Your task to perform on an android device: Clear the shopping cart on target.com. Add "razer huntsman" to the cart on target.com, then select checkout. Image 0: 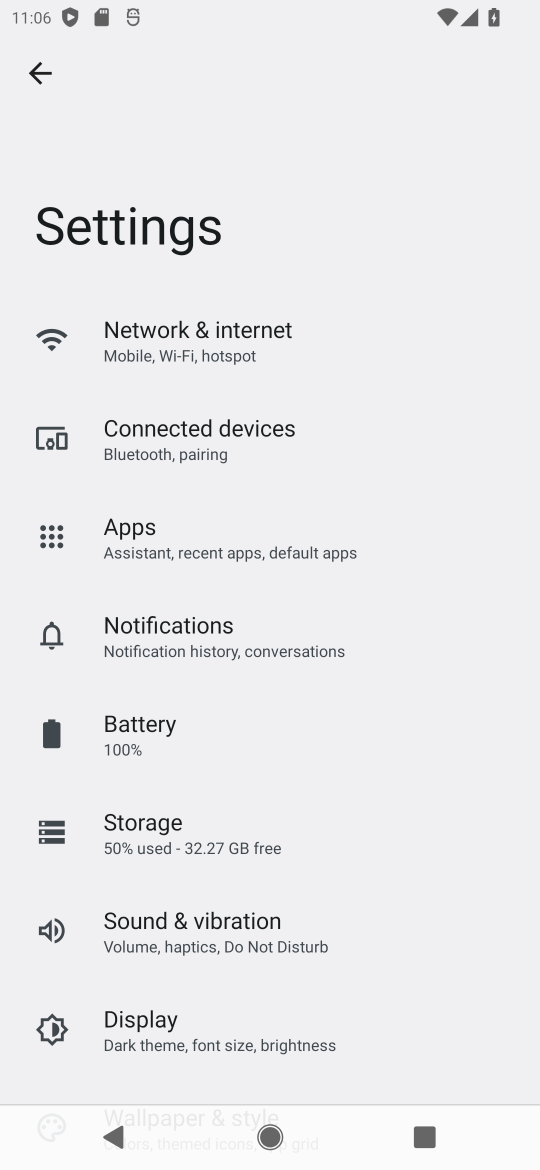
Step 0: press home button
Your task to perform on an android device: Clear the shopping cart on target.com. Add "razer huntsman" to the cart on target.com, then select checkout. Image 1: 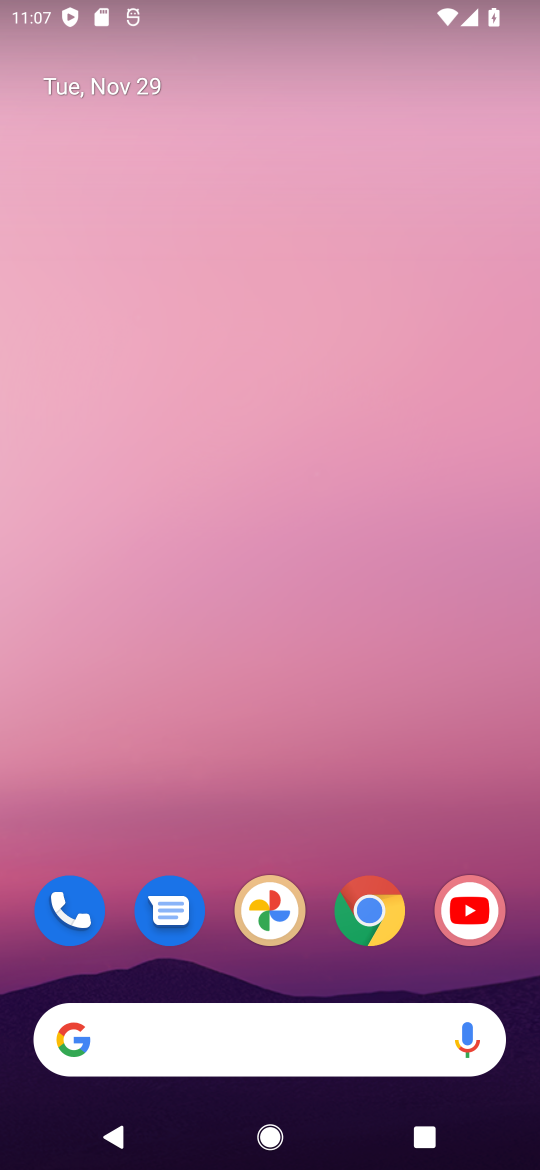
Step 1: click (371, 909)
Your task to perform on an android device: Clear the shopping cart on target.com. Add "razer huntsman" to the cart on target.com, then select checkout. Image 2: 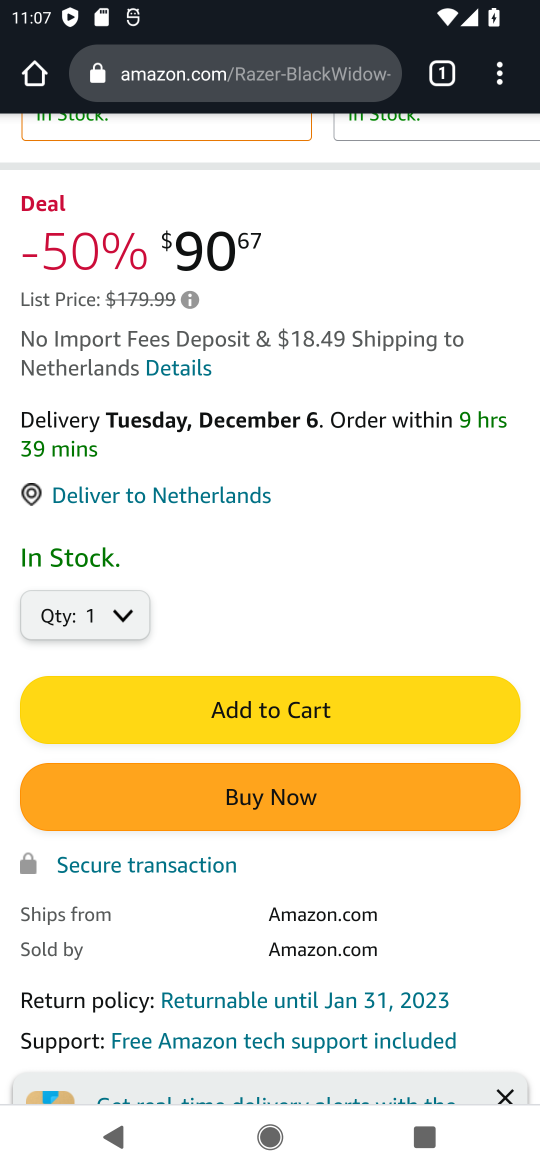
Step 2: click (218, 72)
Your task to perform on an android device: Clear the shopping cart on target.com. Add "razer huntsman" to the cart on target.com, then select checkout. Image 3: 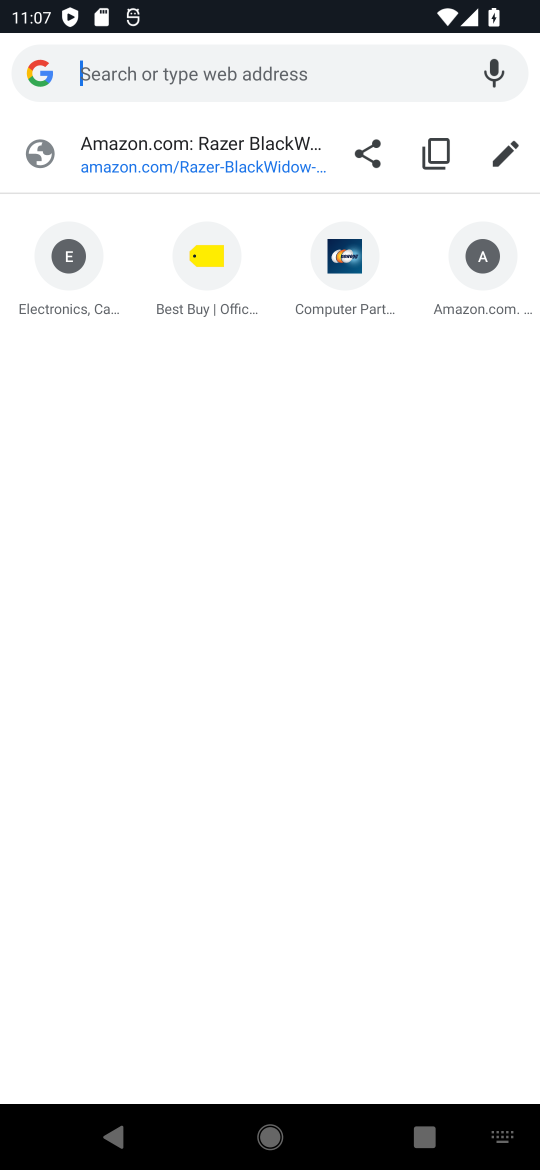
Step 3: type "target.com"
Your task to perform on an android device: Clear the shopping cart on target.com. Add "razer huntsman" to the cart on target.com, then select checkout. Image 4: 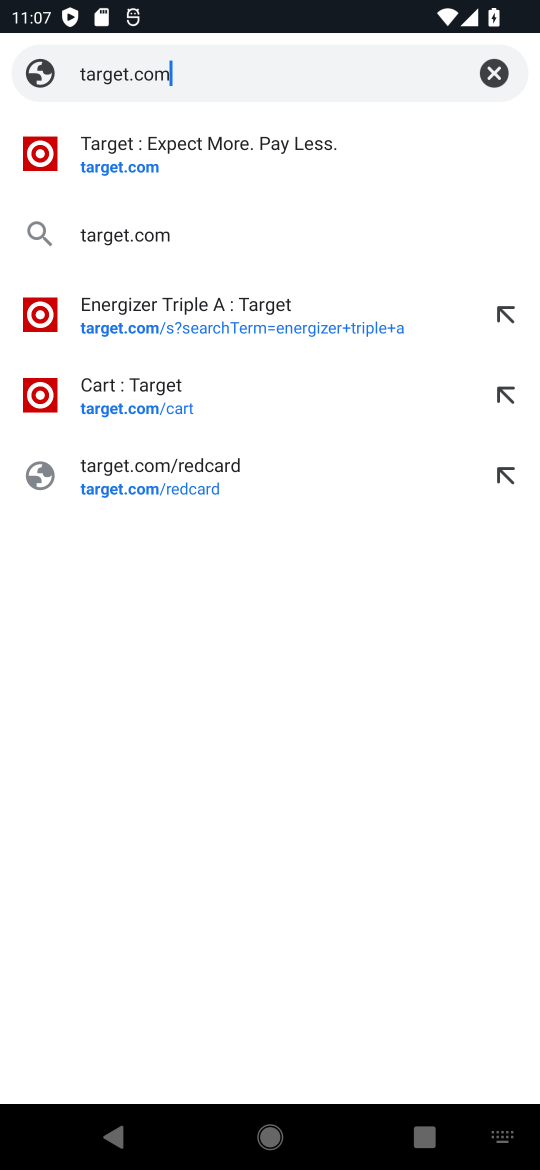
Step 4: click (139, 173)
Your task to perform on an android device: Clear the shopping cart on target.com. Add "razer huntsman" to the cart on target.com, then select checkout. Image 5: 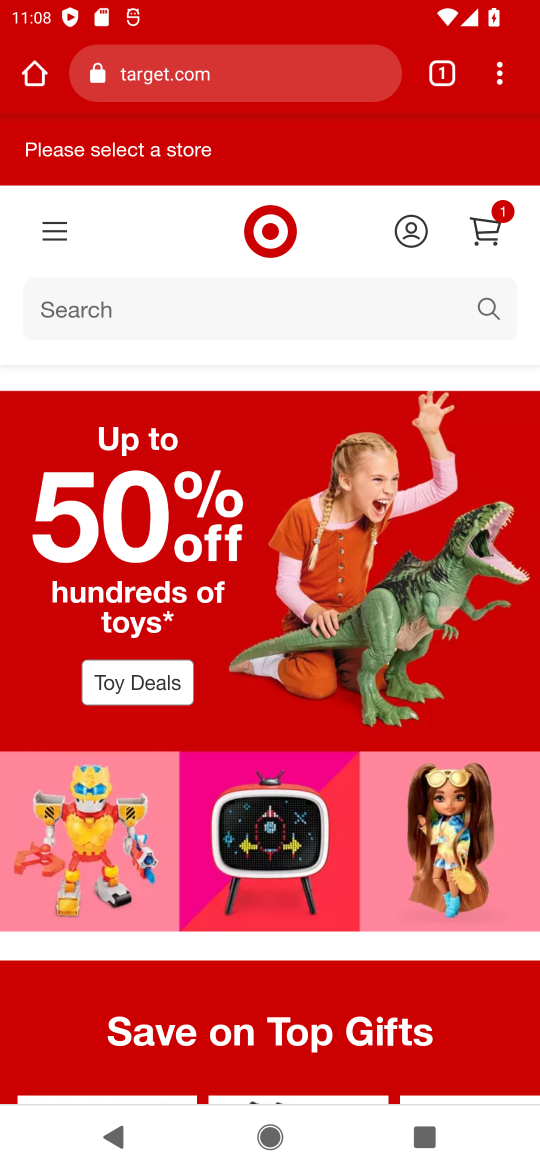
Step 5: click (483, 230)
Your task to perform on an android device: Clear the shopping cart on target.com. Add "razer huntsman" to the cart on target.com, then select checkout. Image 6: 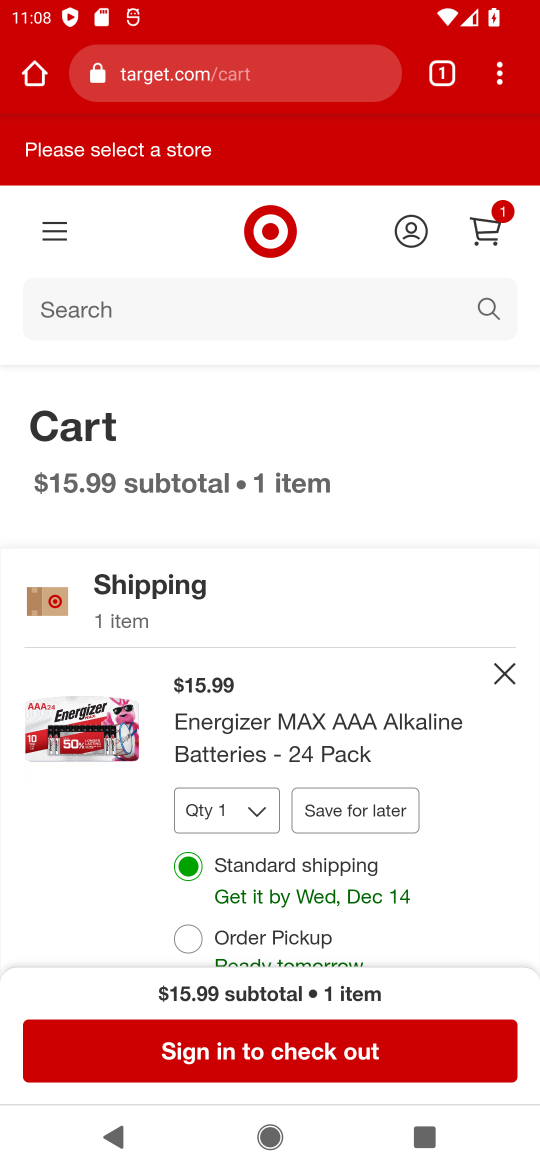
Step 6: click (510, 680)
Your task to perform on an android device: Clear the shopping cart on target.com. Add "razer huntsman" to the cart on target.com, then select checkout. Image 7: 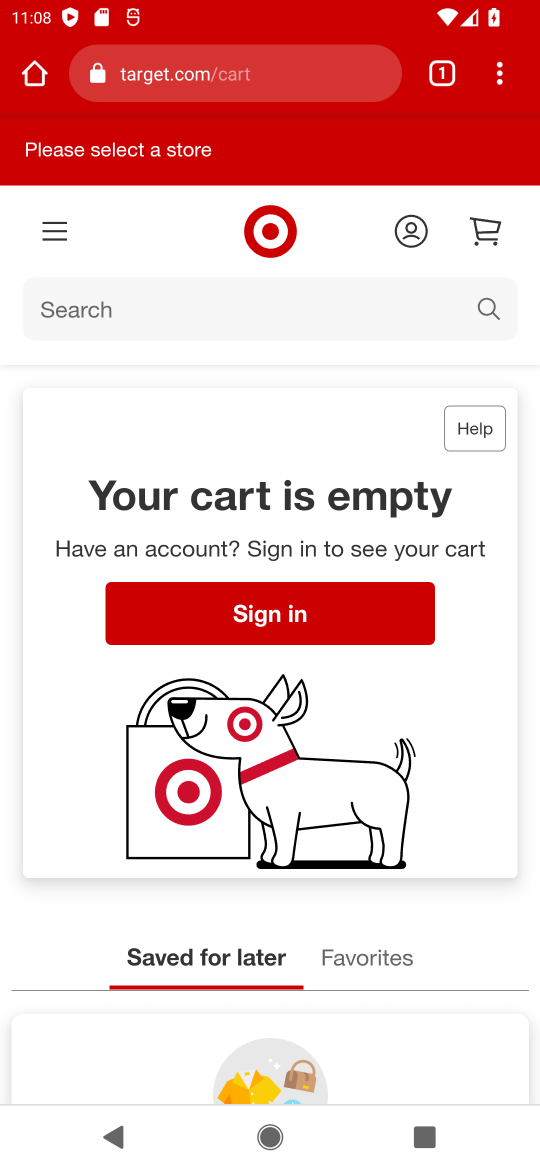
Step 7: click (103, 310)
Your task to perform on an android device: Clear the shopping cart on target.com. Add "razer huntsman" to the cart on target.com, then select checkout. Image 8: 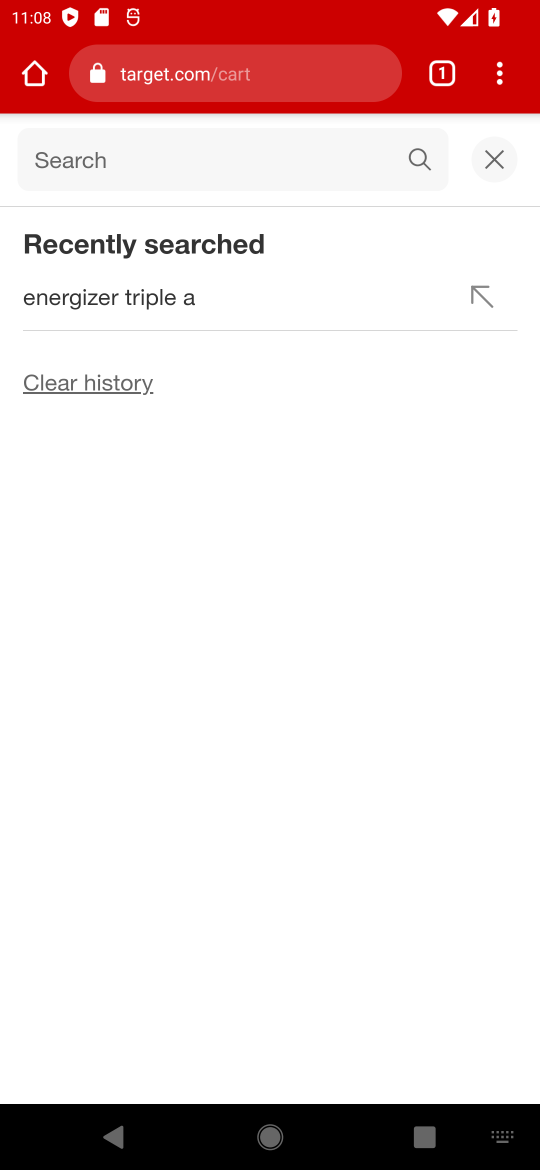
Step 8: type "razer huntsman"
Your task to perform on an android device: Clear the shopping cart on target.com. Add "razer huntsman" to the cart on target.com, then select checkout. Image 9: 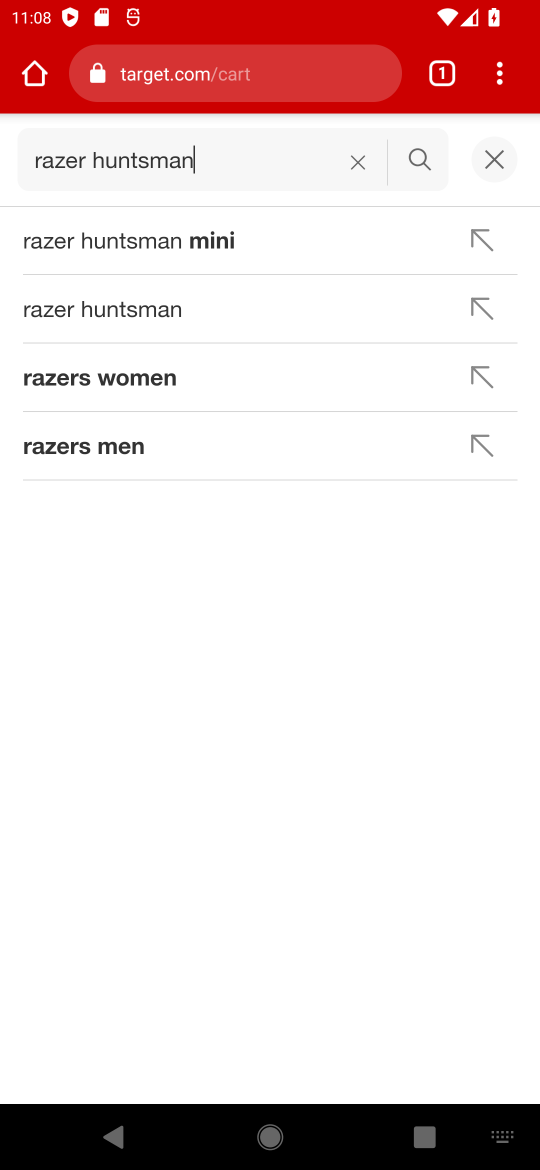
Step 9: click (104, 309)
Your task to perform on an android device: Clear the shopping cart on target.com. Add "razer huntsman" to the cart on target.com, then select checkout. Image 10: 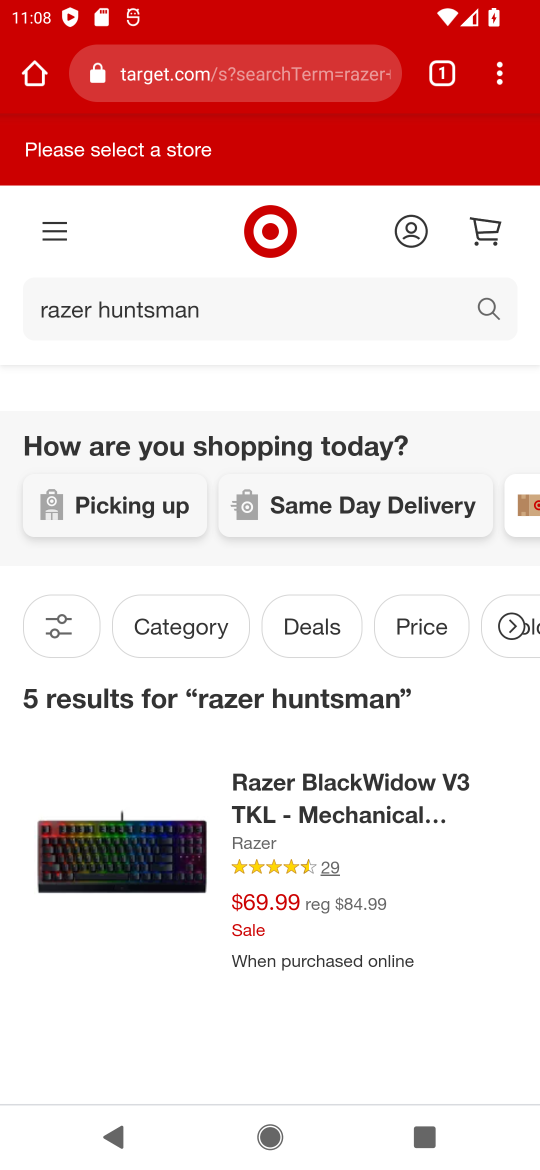
Step 10: drag from (245, 639) to (257, 410)
Your task to perform on an android device: Clear the shopping cart on target.com. Add "razer huntsman" to the cart on target.com, then select checkout. Image 11: 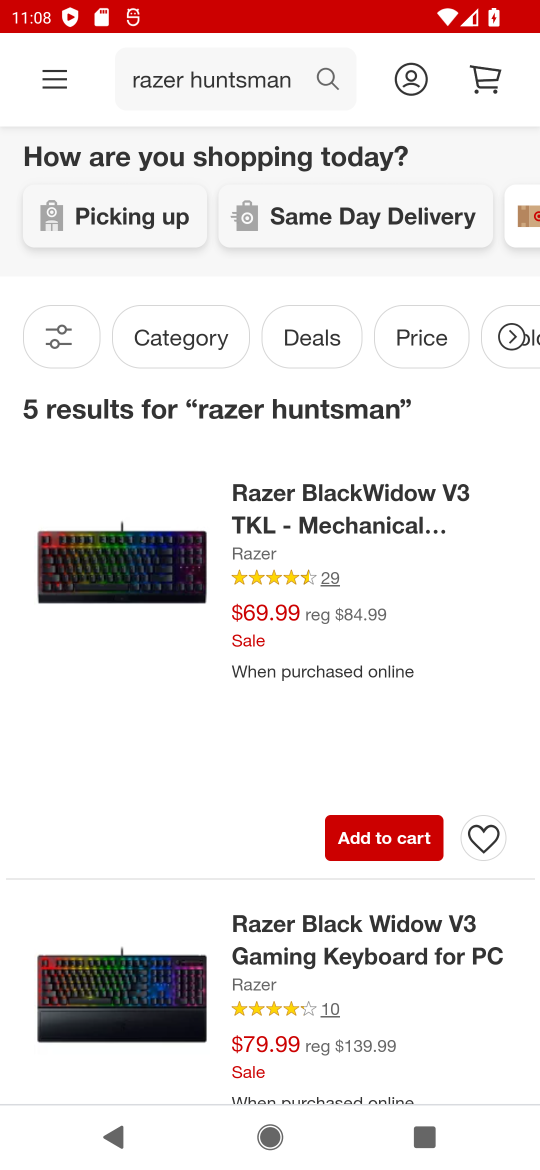
Step 11: drag from (212, 823) to (246, 436)
Your task to perform on an android device: Clear the shopping cart on target.com. Add "razer huntsman" to the cart on target.com, then select checkout. Image 12: 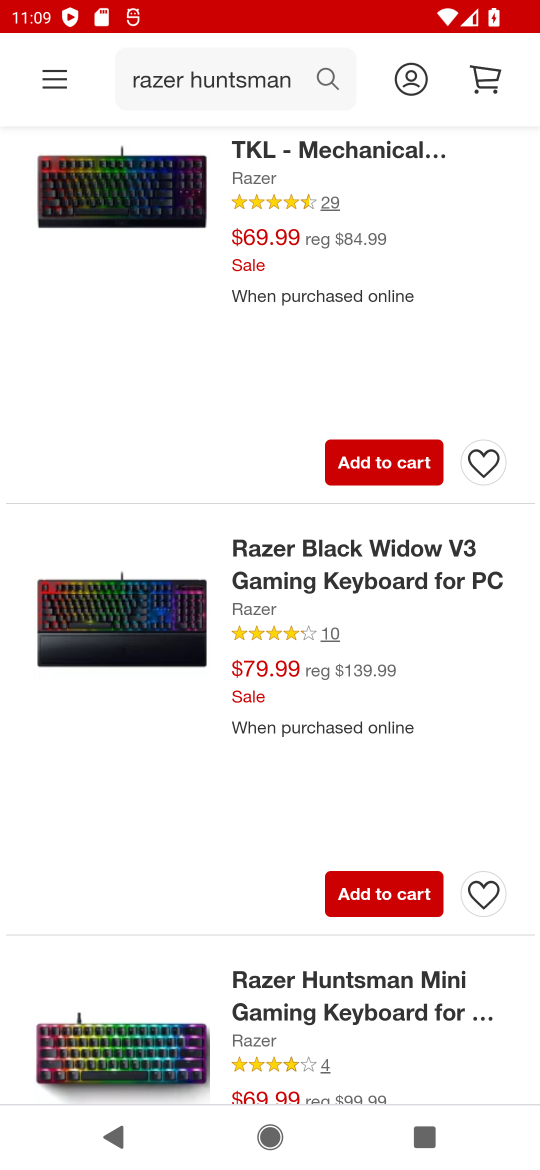
Step 12: drag from (226, 893) to (235, 548)
Your task to perform on an android device: Clear the shopping cart on target.com. Add "razer huntsman" to the cart on target.com, then select checkout. Image 13: 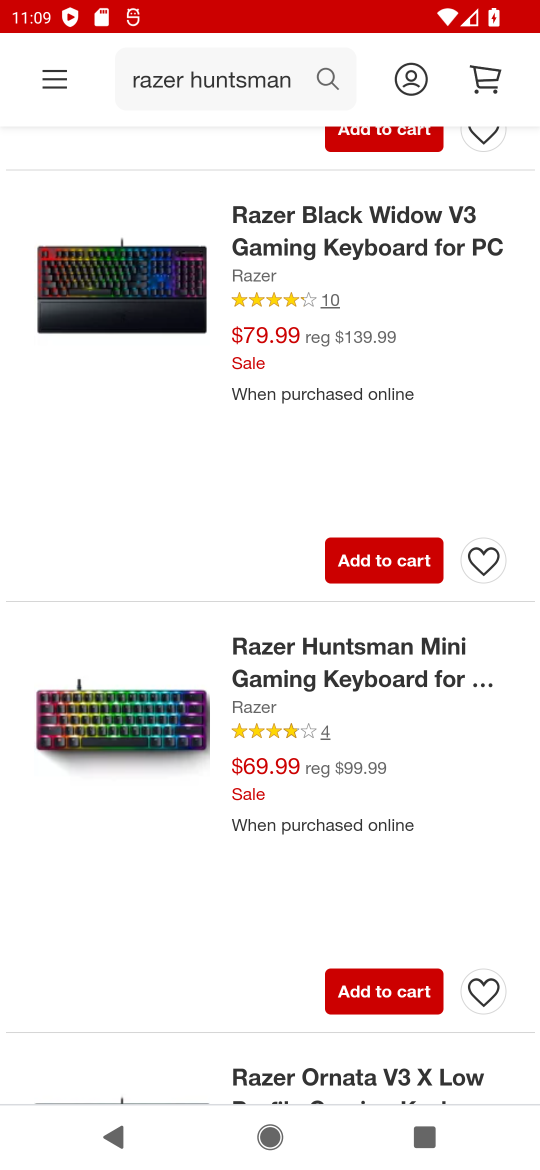
Step 13: click (380, 1001)
Your task to perform on an android device: Clear the shopping cart on target.com. Add "razer huntsman" to the cart on target.com, then select checkout. Image 14: 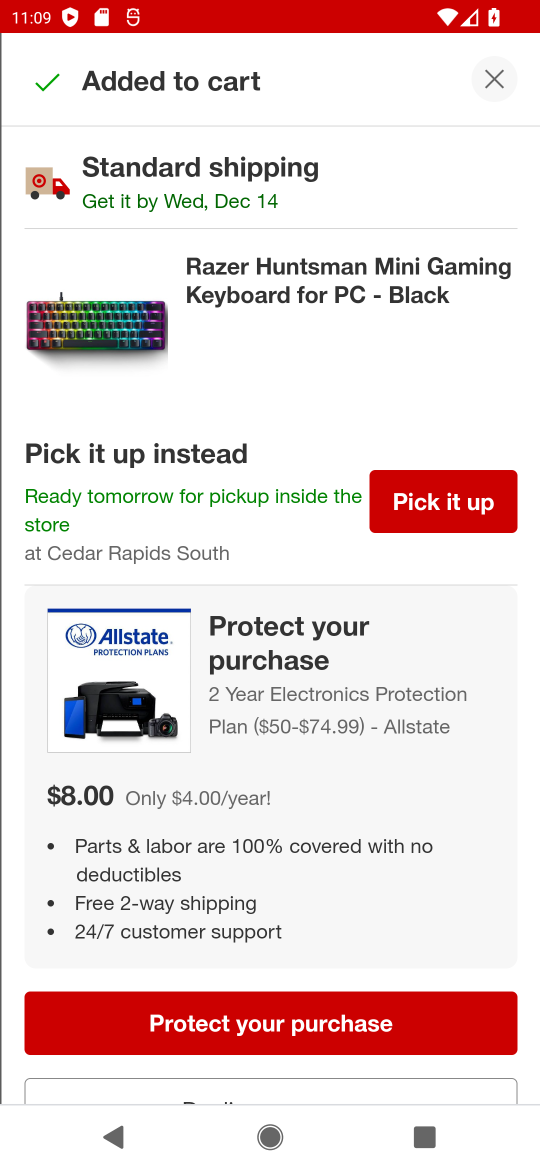
Step 14: click (494, 83)
Your task to perform on an android device: Clear the shopping cart on target.com. Add "razer huntsman" to the cart on target.com, then select checkout. Image 15: 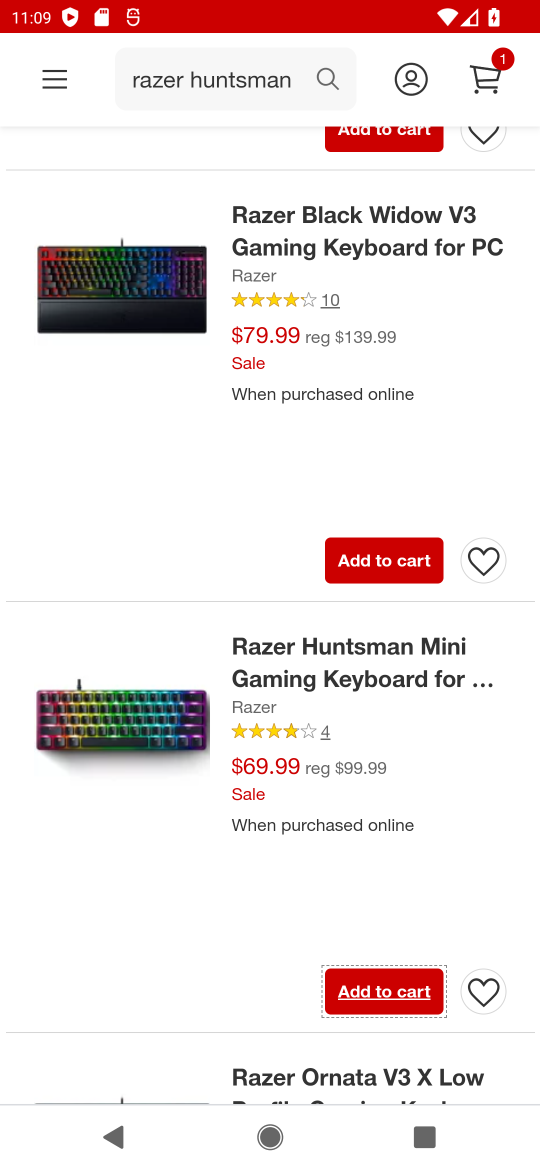
Step 15: click (485, 73)
Your task to perform on an android device: Clear the shopping cart on target.com. Add "razer huntsman" to the cart on target.com, then select checkout. Image 16: 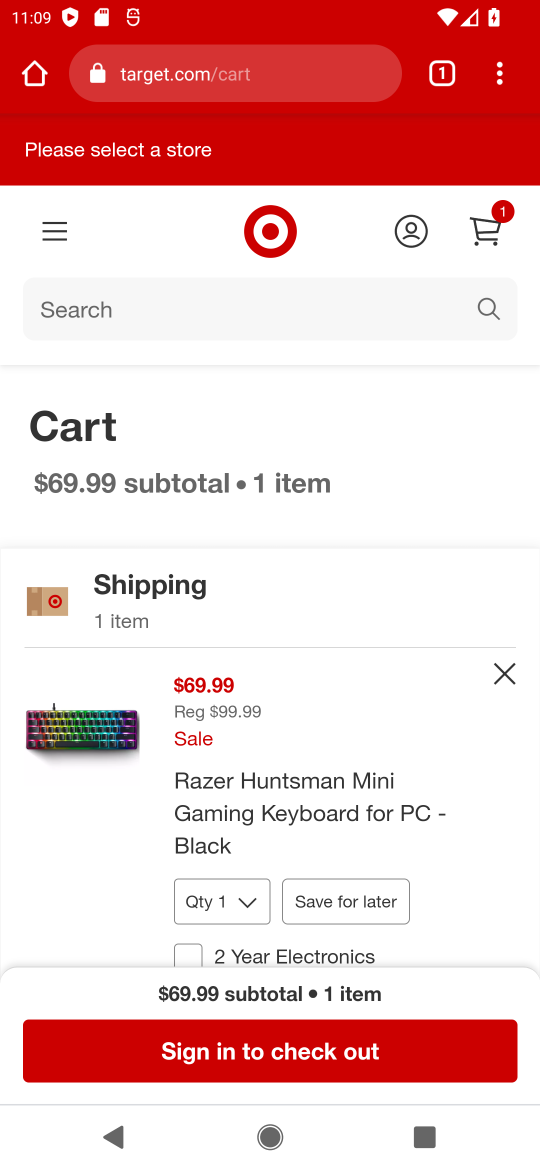
Step 16: click (269, 1057)
Your task to perform on an android device: Clear the shopping cart on target.com. Add "razer huntsman" to the cart on target.com, then select checkout. Image 17: 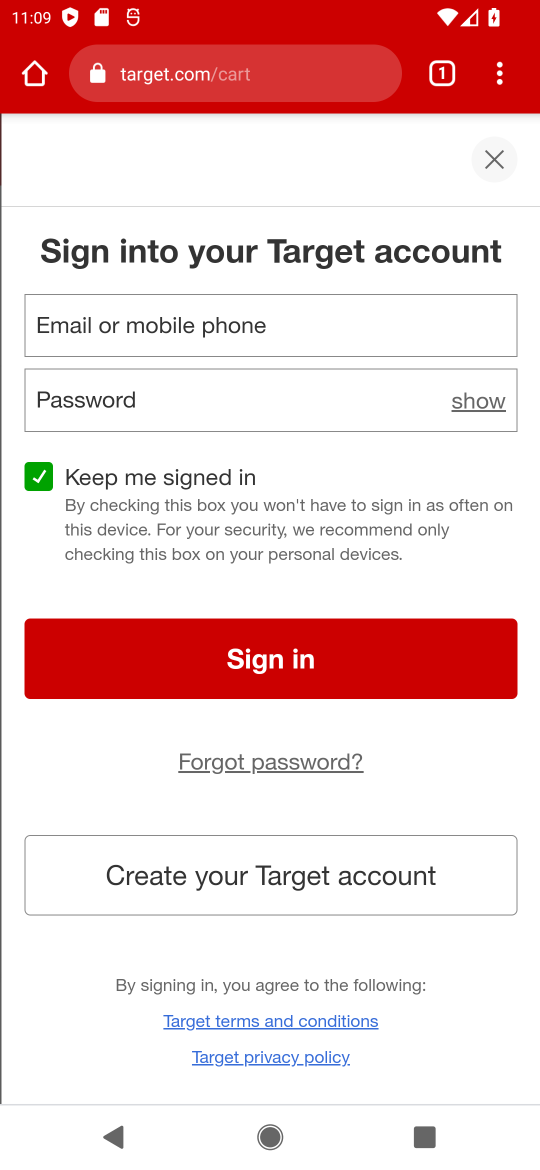
Step 17: task complete